Your task to perform on an android device: toggle location history Image 0: 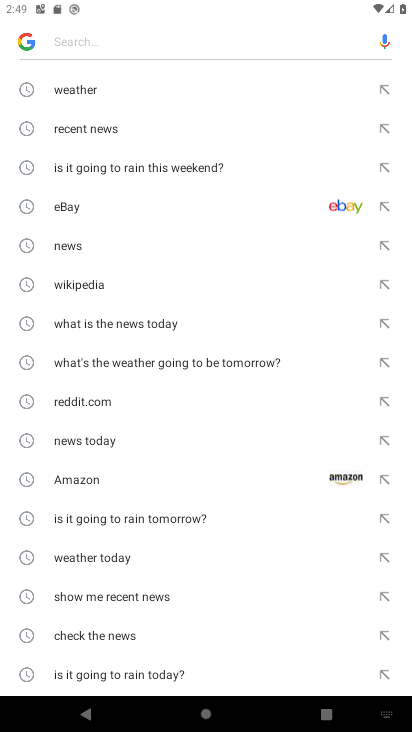
Step 0: press home button
Your task to perform on an android device: toggle location history Image 1: 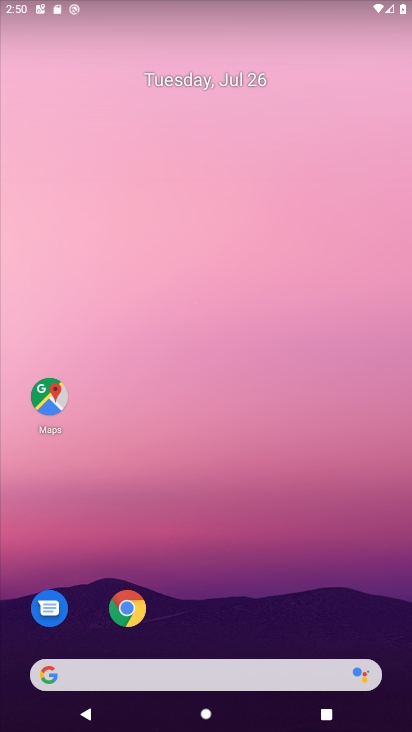
Step 1: drag from (267, 627) to (146, 228)
Your task to perform on an android device: toggle location history Image 2: 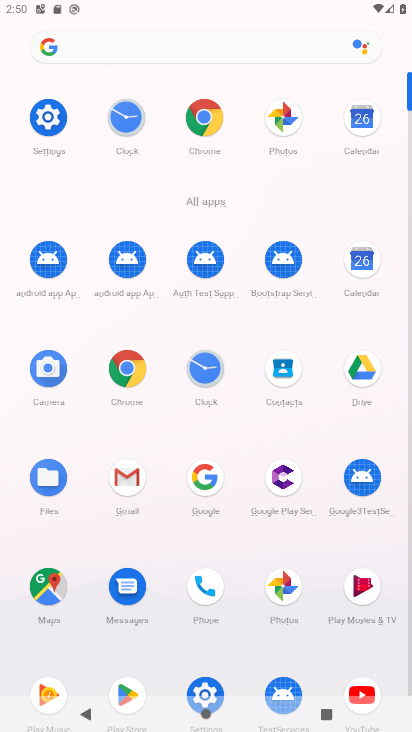
Step 2: click (210, 688)
Your task to perform on an android device: toggle location history Image 3: 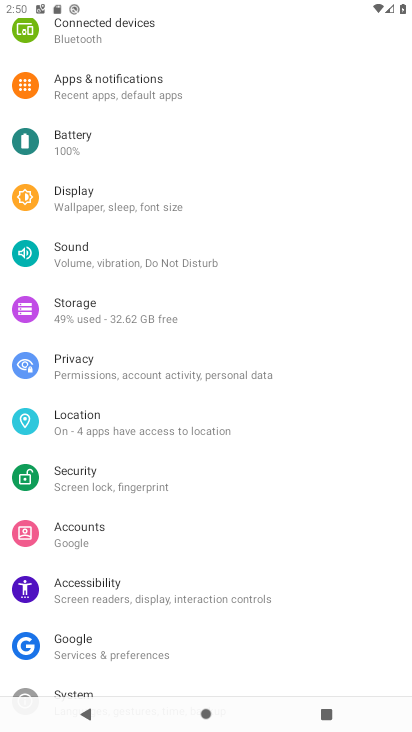
Step 3: click (128, 429)
Your task to perform on an android device: toggle location history Image 4: 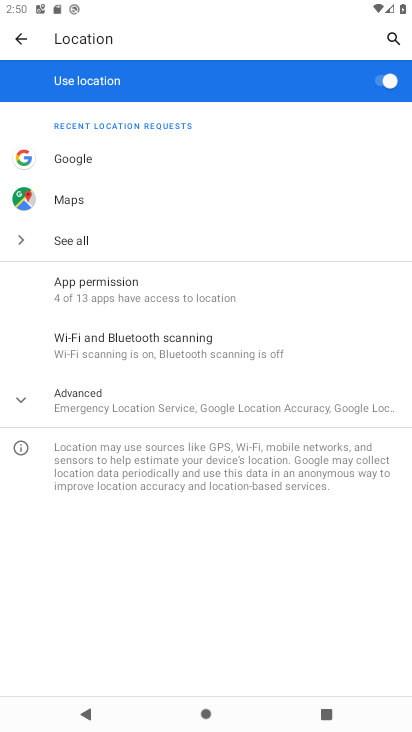
Step 4: click (96, 386)
Your task to perform on an android device: toggle location history Image 5: 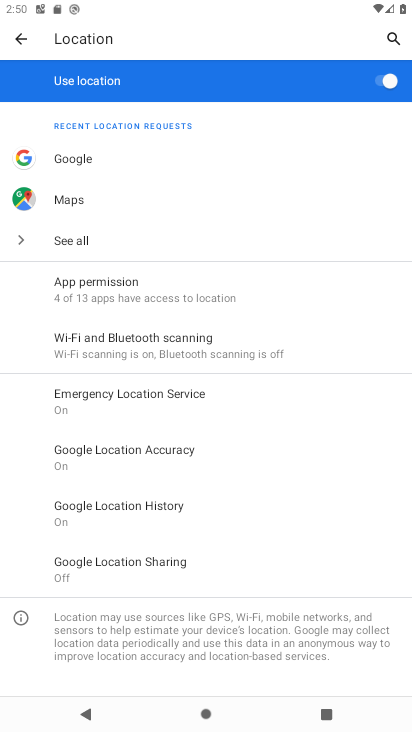
Step 5: click (186, 505)
Your task to perform on an android device: toggle location history Image 6: 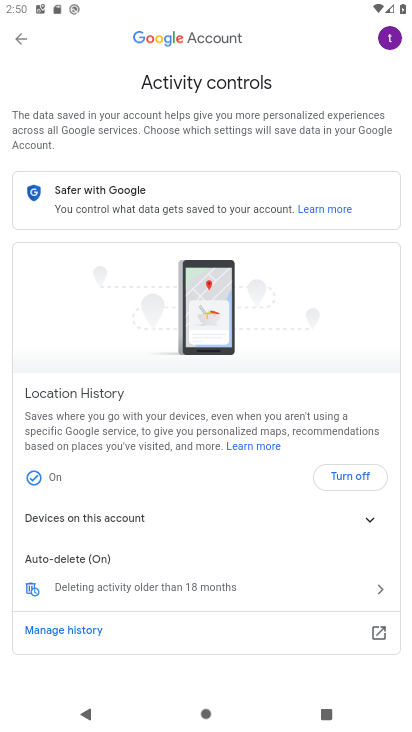
Step 6: click (332, 477)
Your task to perform on an android device: toggle location history Image 7: 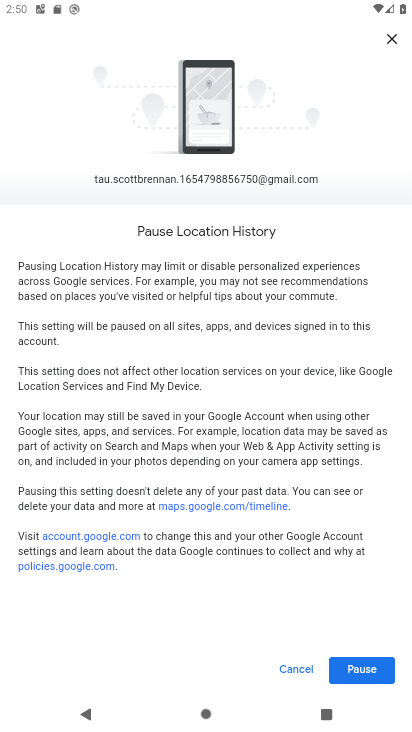
Step 7: click (353, 670)
Your task to perform on an android device: toggle location history Image 8: 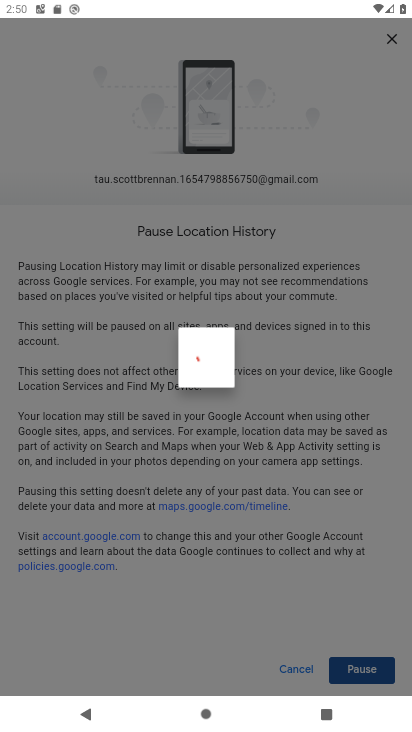
Step 8: click (353, 670)
Your task to perform on an android device: toggle location history Image 9: 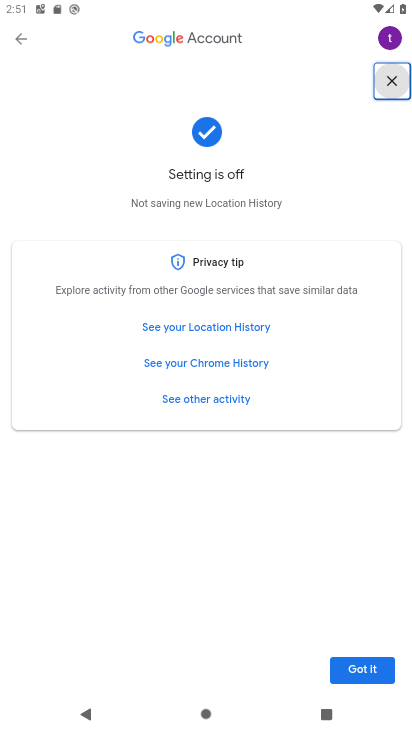
Step 9: click (341, 665)
Your task to perform on an android device: toggle location history Image 10: 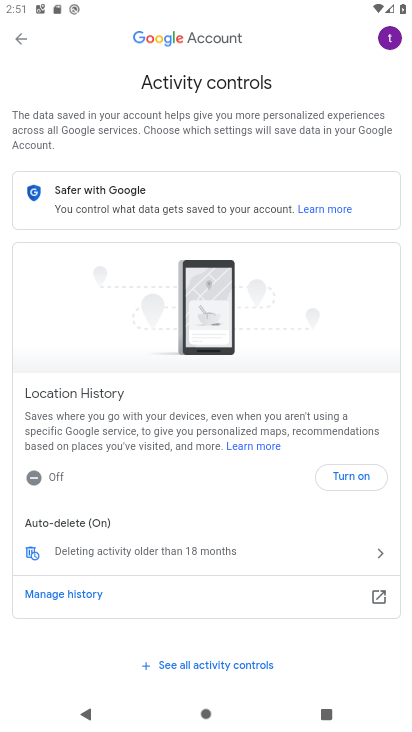
Step 10: task complete